Your task to perform on an android device: move an email to a new category in the gmail app Image 0: 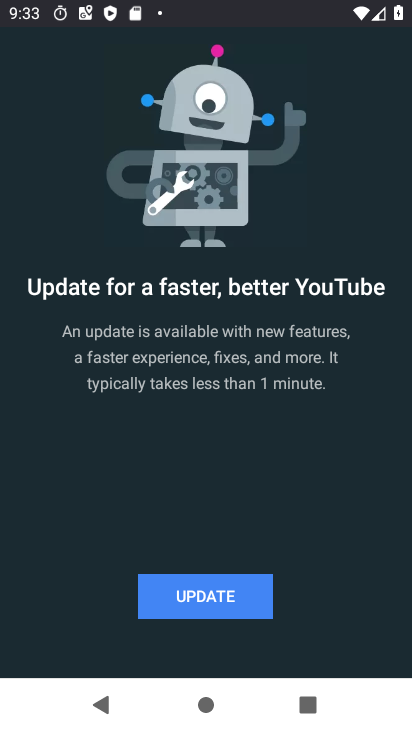
Step 0: press home button
Your task to perform on an android device: move an email to a new category in the gmail app Image 1: 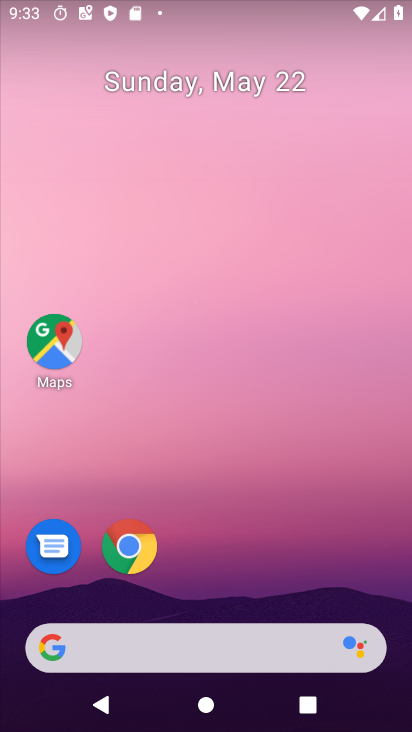
Step 1: drag from (176, 618) to (225, 217)
Your task to perform on an android device: move an email to a new category in the gmail app Image 2: 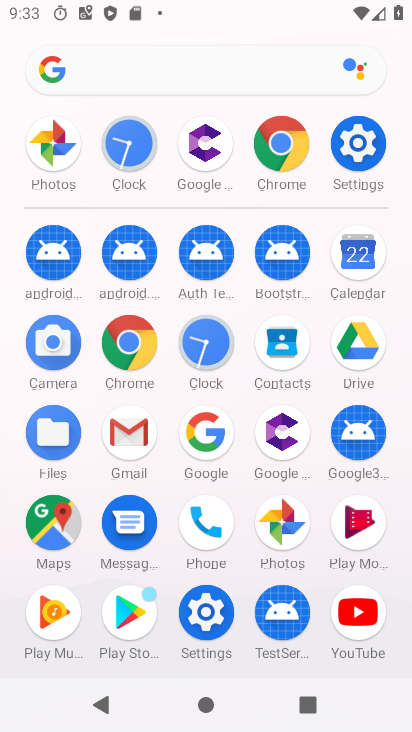
Step 2: click (124, 443)
Your task to perform on an android device: move an email to a new category in the gmail app Image 3: 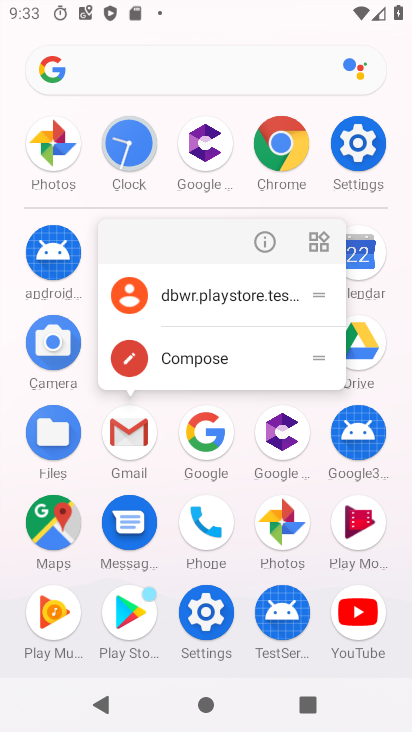
Step 3: click (218, 292)
Your task to perform on an android device: move an email to a new category in the gmail app Image 4: 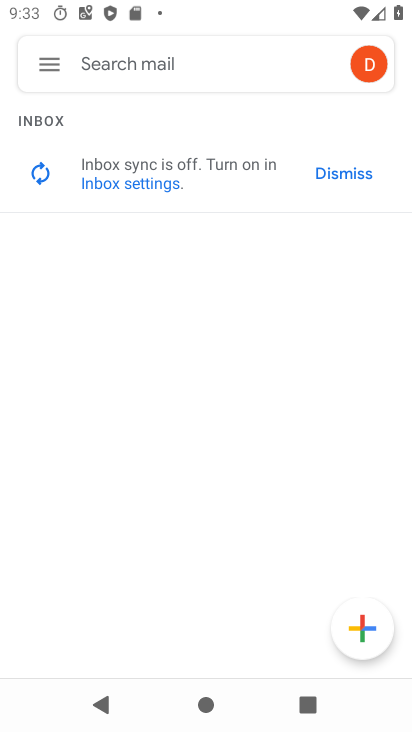
Step 4: click (29, 61)
Your task to perform on an android device: move an email to a new category in the gmail app Image 5: 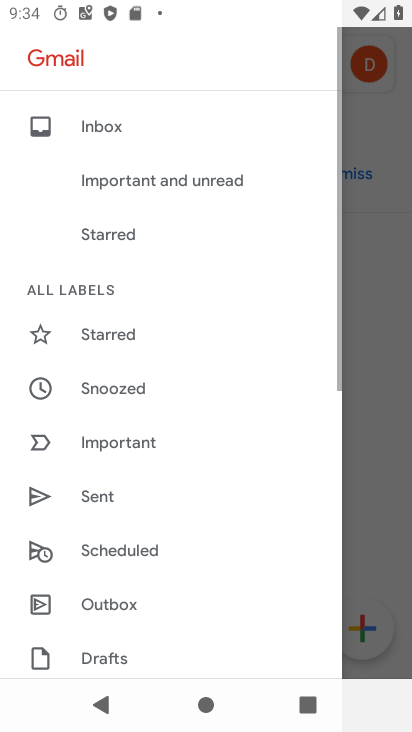
Step 5: drag from (134, 627) to (229, 73)
Your task to perform on an android device: move an email to a new category in the gmail app Image 6: 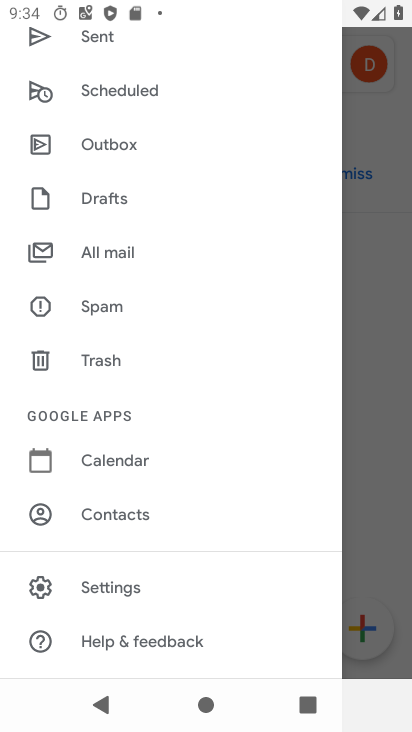
Step 6: click (351, 469)
Your task to perform on an android device: move an email to a new category in the gmail app Image 7: 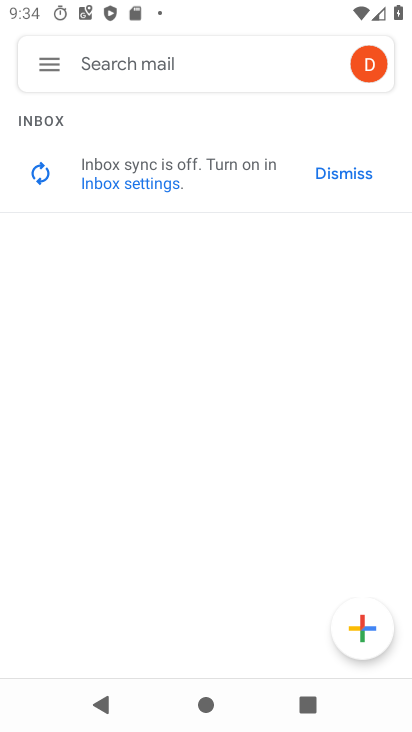
Step 7: task complete